Your task to perform on an android device: find photos in the google photos app Image 0: 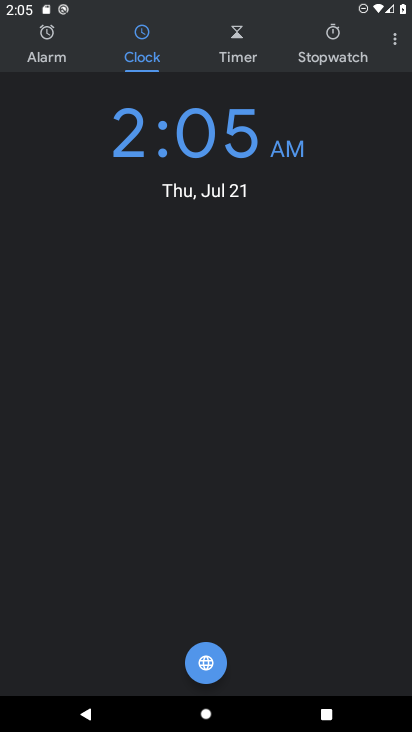
Step 0: press home button
Your task to perform on an android device: find photos in the google photos app Image 1: 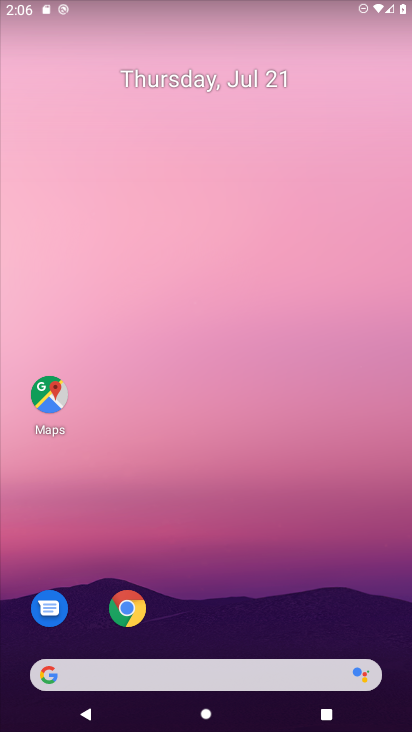
Step 1: drag from (215, 621) to (211, 183)
Your task to perform on an android device: find photos in the google photos app Image 2: 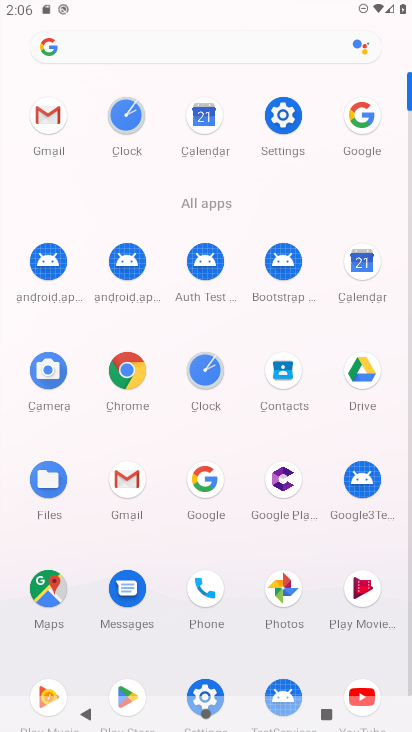
Step 2: click (266, 598)
Your task to perform on an android device: find photos in the google photos app Image 3: 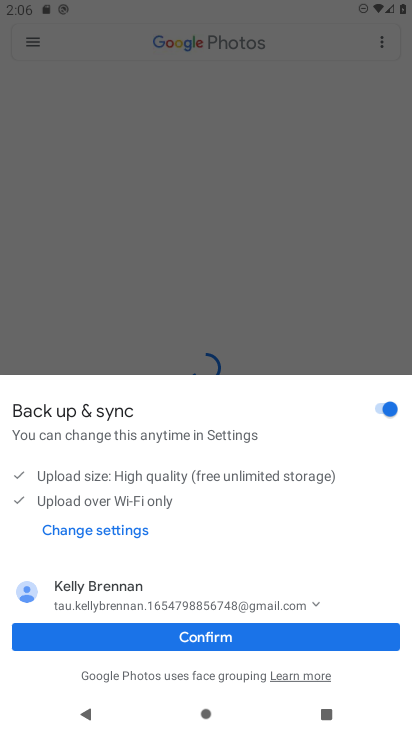
Step 3: click (213, 645)
Your task to perform on an android device: find photos in the google photos app Image 4: 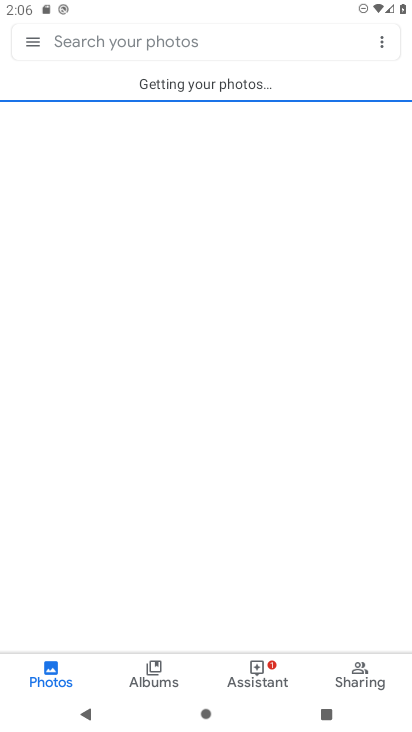
Step 4: click (105, 45)
Your task to perform on an android device: find photos in the google photos app Image 5: 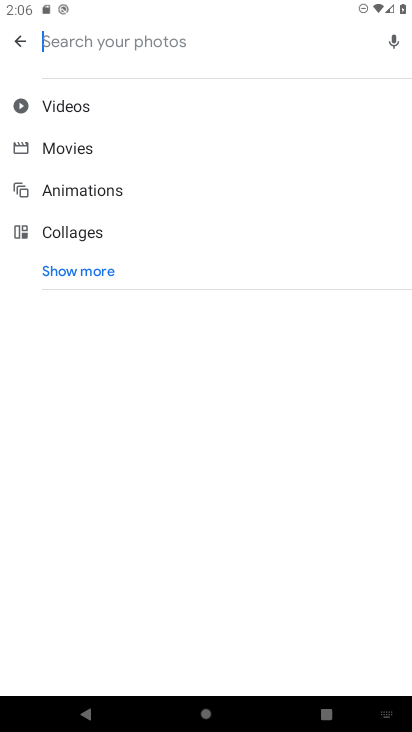
Step 5: type "aa"
Your task to perform on an android device: find photos in the google photos app Image 6: 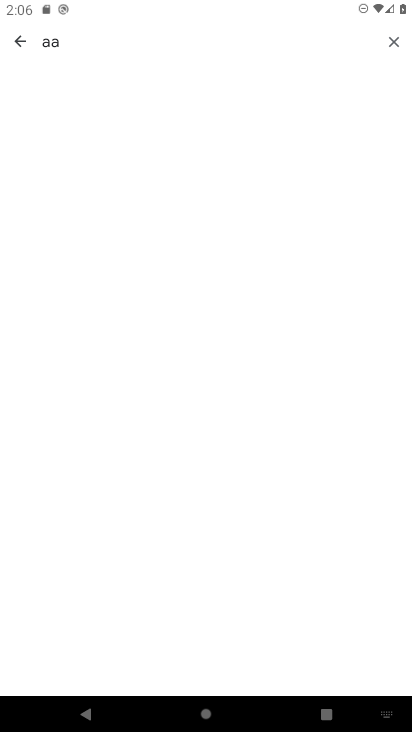
Step 6: task complete